Your task to perform on an android device: check out phone information Image 0: 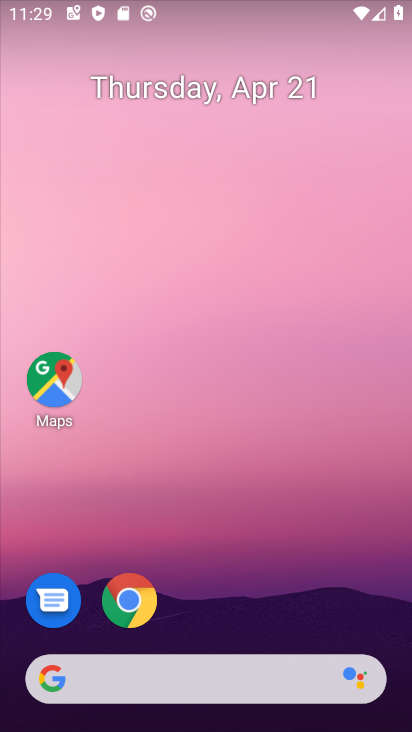
Step 0: drag from (197, 606) to (244, 90)
Your task to perform on an android device: check out phone information Image 1: 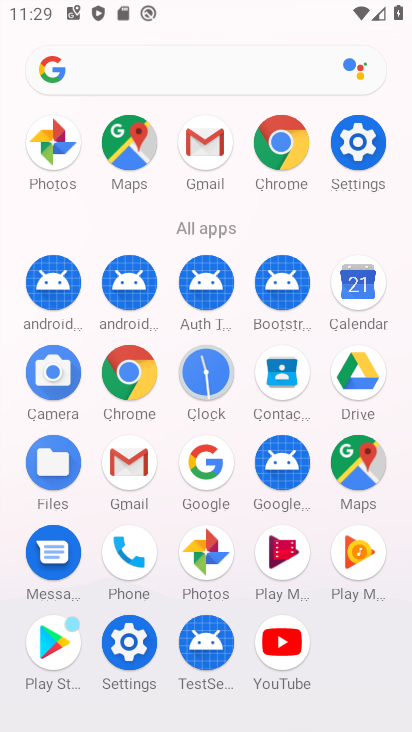
Step 1: click (135, 650)
Your task to perform on an android device: check out phone information Image 2: 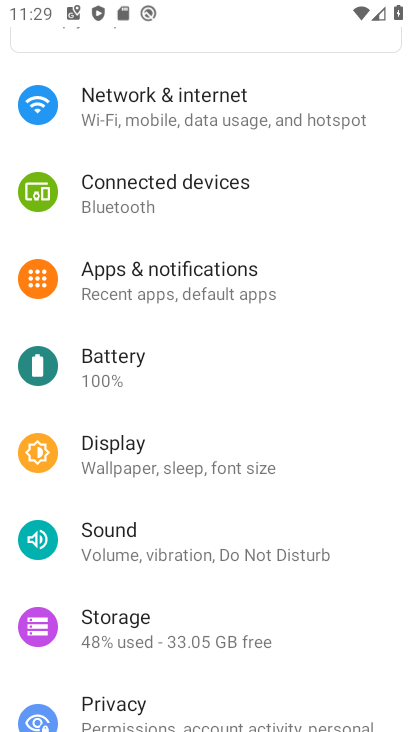
Step 2: drag from (128, 666) to (303, 28)
Your task to perform on an android device: check out phone information Image 3: 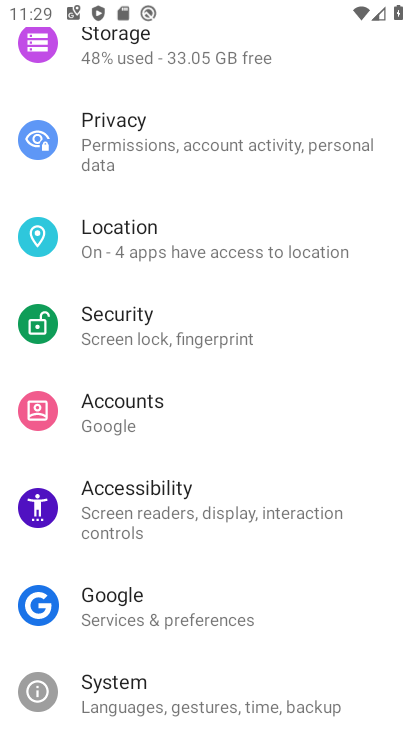
Step 3: drag from (174, 676) to (251, 211)
Your task to perform on an android device: check out phone information Image 4: 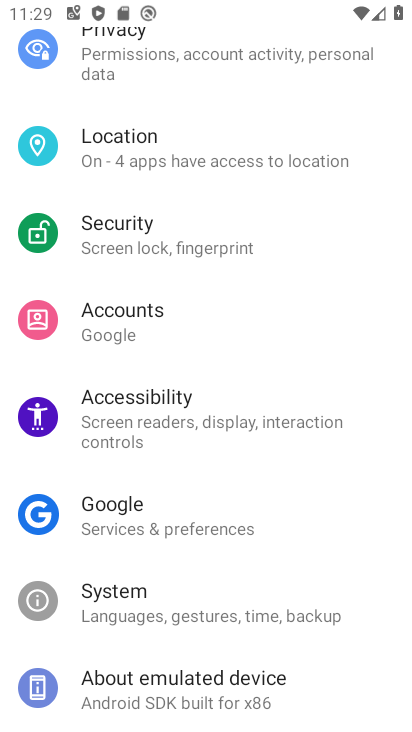
Step 4: click (142, 701)
Your task to perform on an android device: check out phone information Image 5: 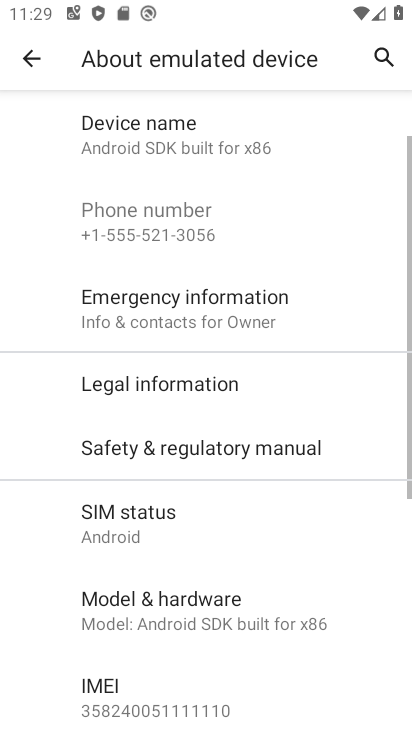
Step 5: task complete